Your task to perform on an android device: Open calendar and show me the third week of next month Image 0: 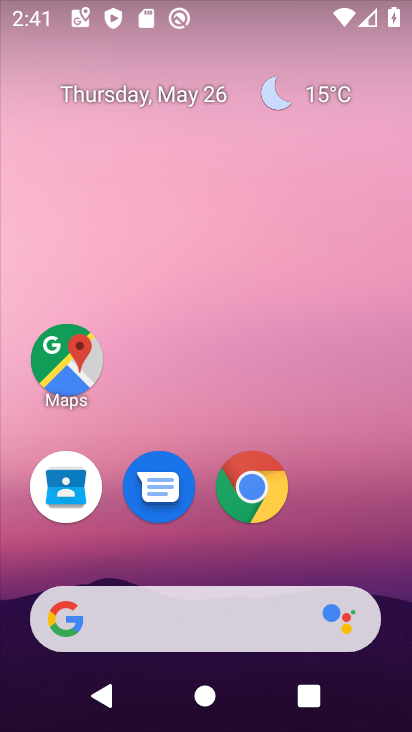
Step 0: drag from (202, 558) to (250, 138)
Your task to perform on an android device: Open calendar and show me the third week of next month Image 1: 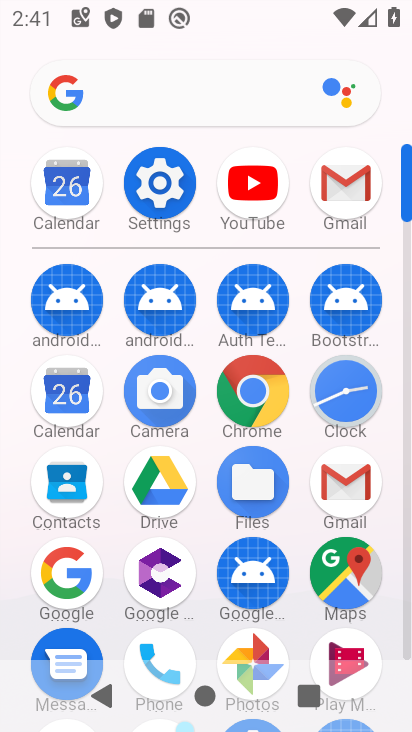
Step 1: click (45, 193)
Your task to perform on an android device: Open calendar and show me the third week of next month Image 2: 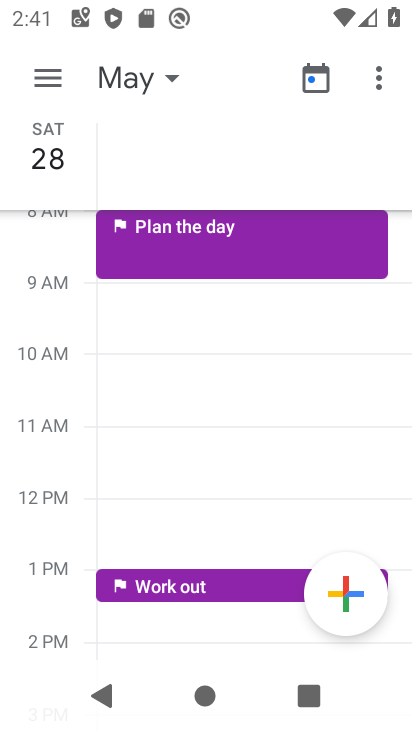
Step 2: click (170, 81)
Your task to perform on an android device: Open calendar and show me the third week of next month Image 3: 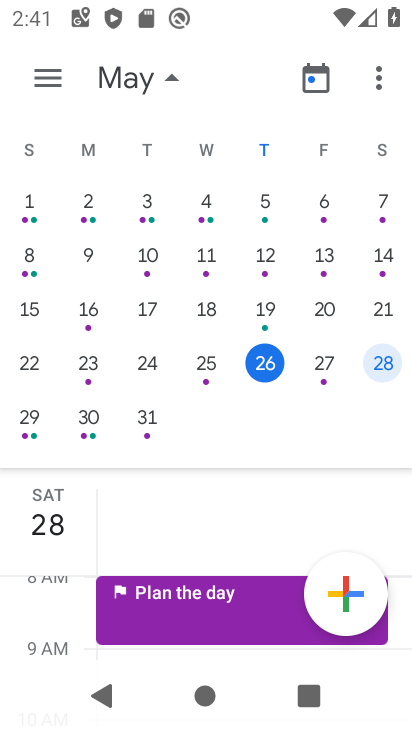
Step 3: drag from (346, 282) to (17, 273)
Your task to perform on an android device: Open calendar and show me the third week of next month Image 4: 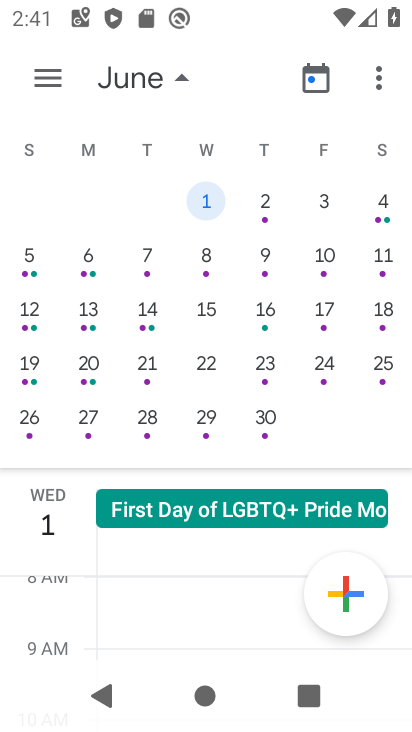
Step 4: click (35, 315)
Your task to perform on an android device: Open calendar and show me the third week of next month Image 5: 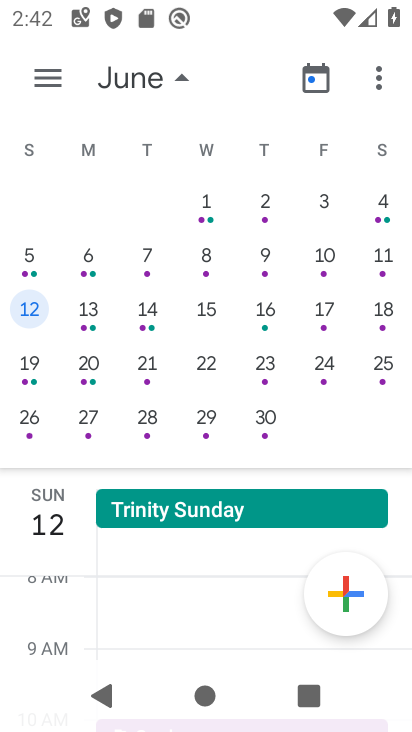
Step 5: task complete